Your task to perform on an android device: add a contact in the contacts app Image 0: 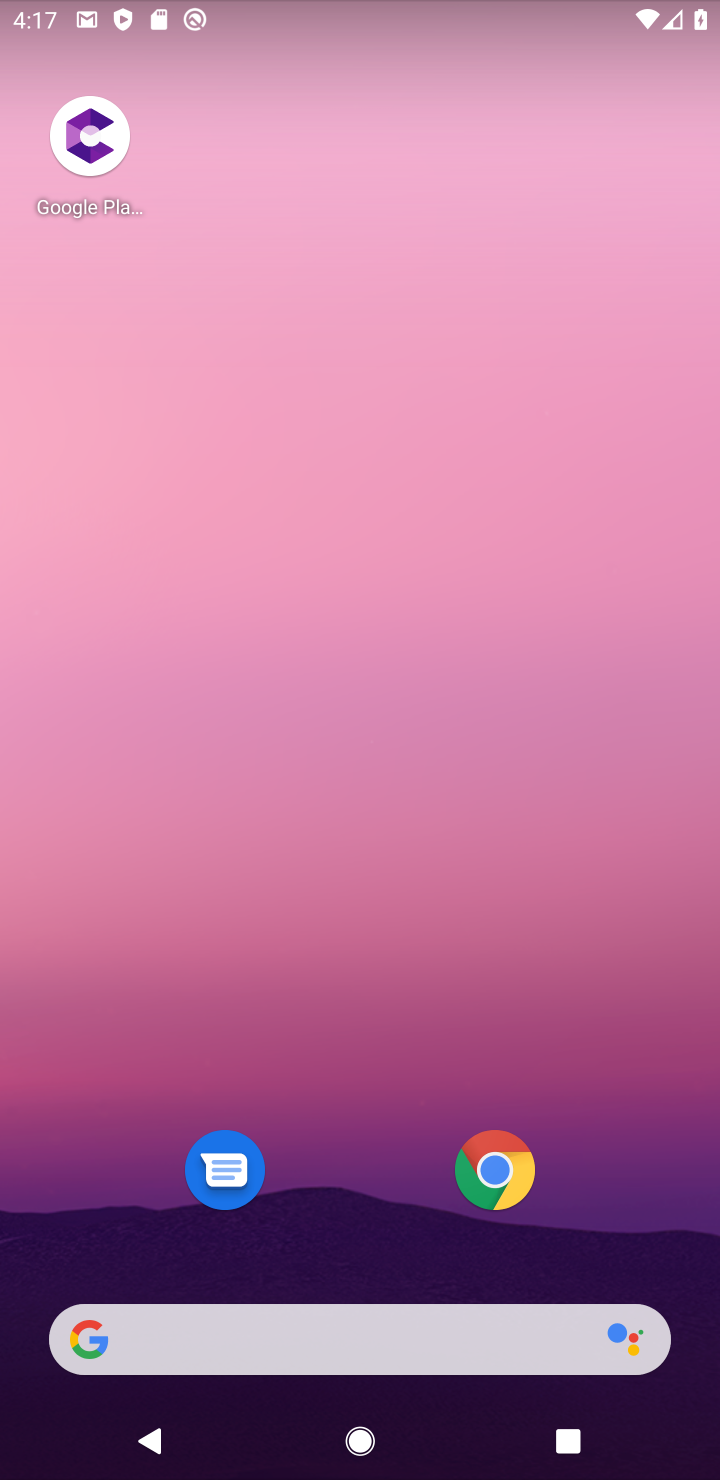
Step 0: drag from (366, 1273) to (695, 712)
Your task to perform on an android device: add a contact in the contacts app Image 1: 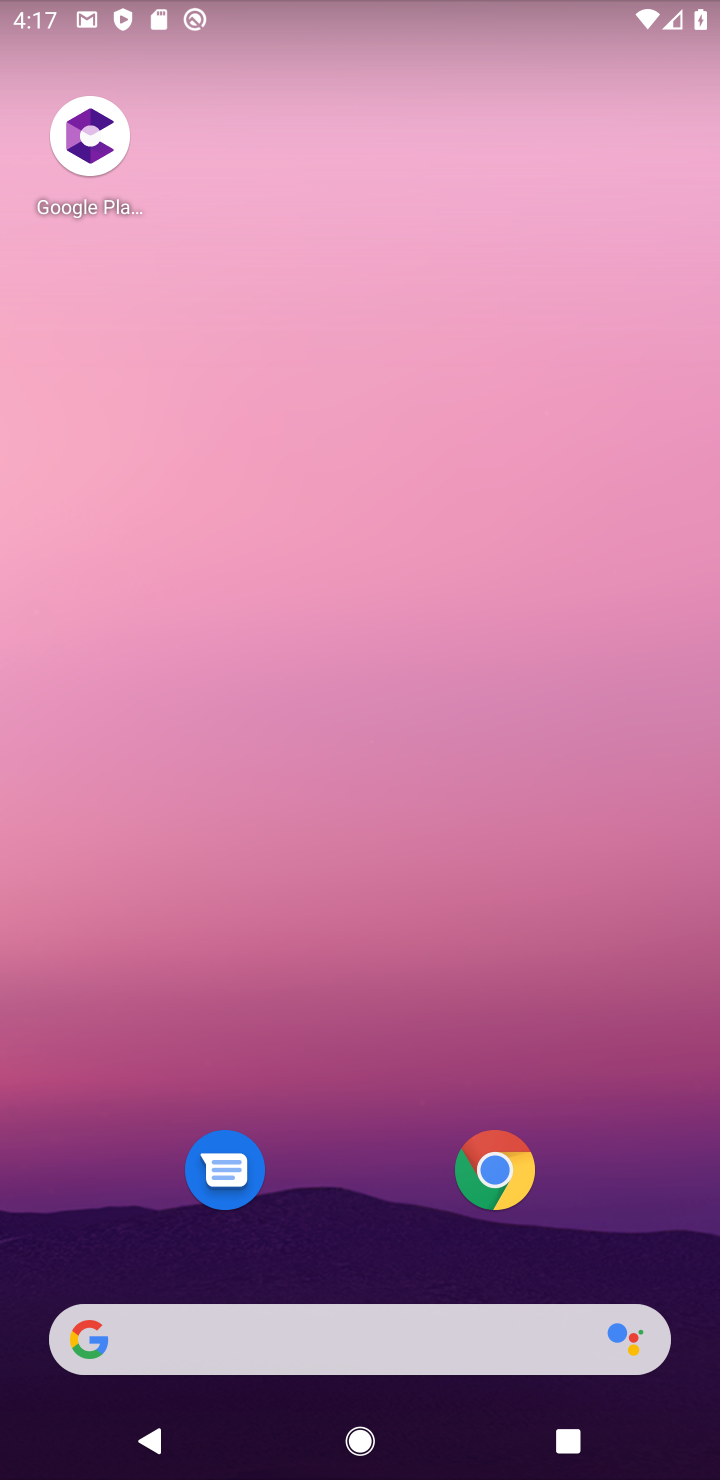
Step 1: drag from (369, 1272) to (324, 192)
Your task to perform on an android device: add a contact in the contacts app Image 2: 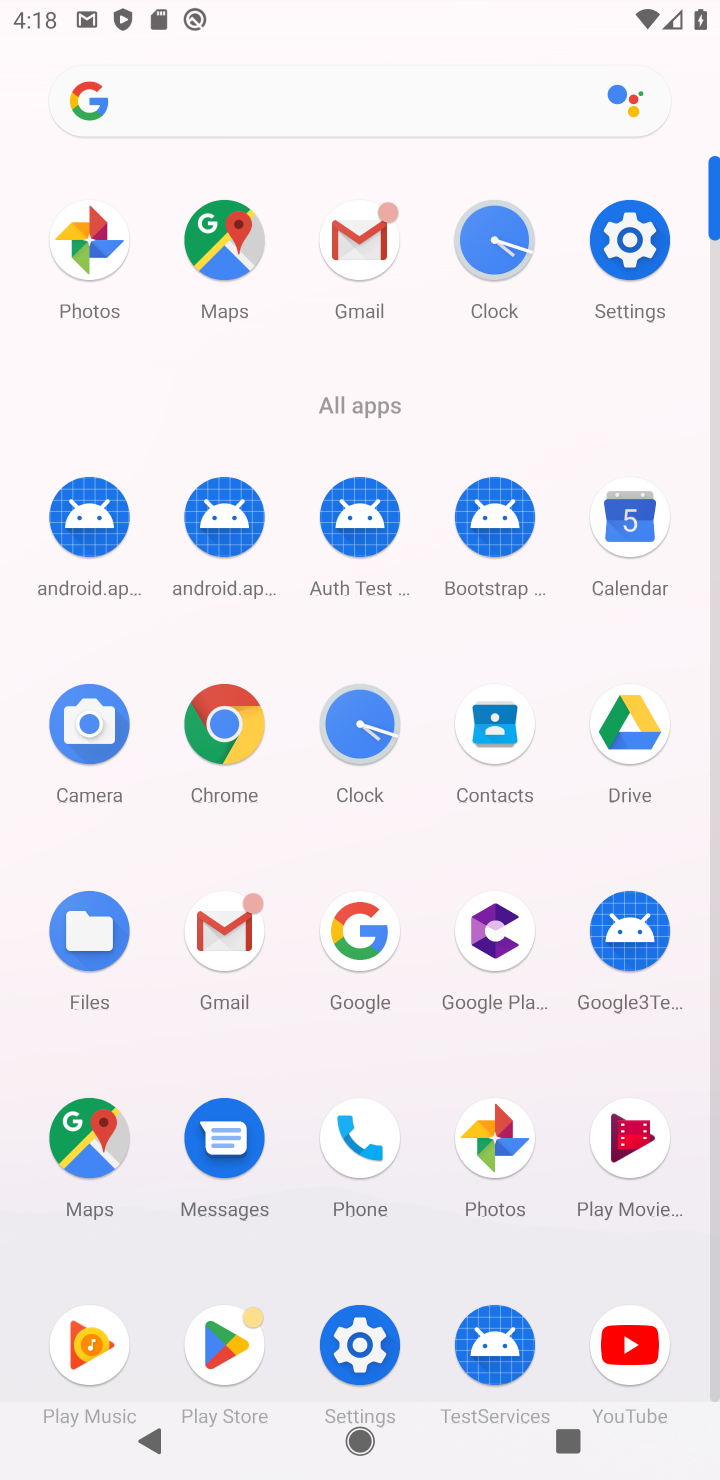
Step 2: click (489, 760)
Your task to perform on an android device: add a contact in the contacts app Image 3: 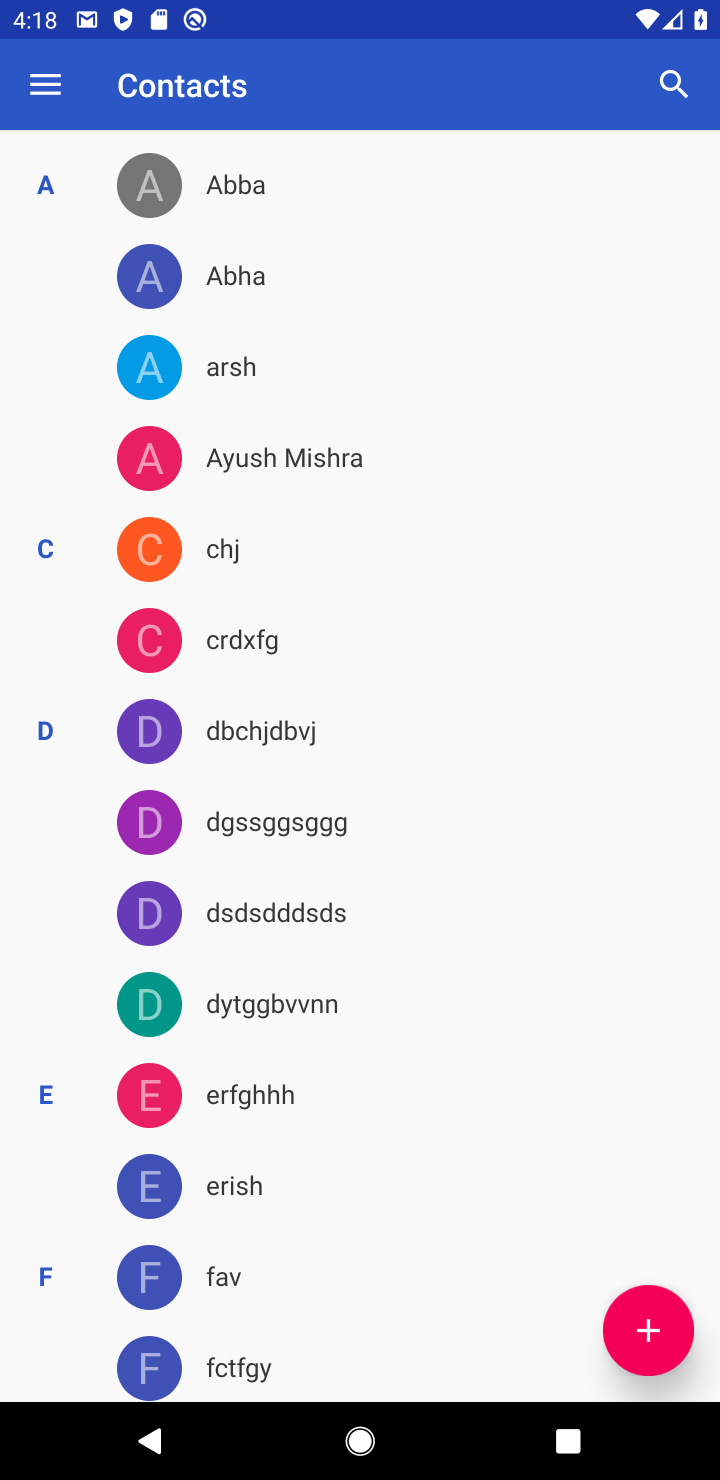
Step 3: click (639, 1304)
Your task to perform on an android device: add a contact in the contacts app Image 4: 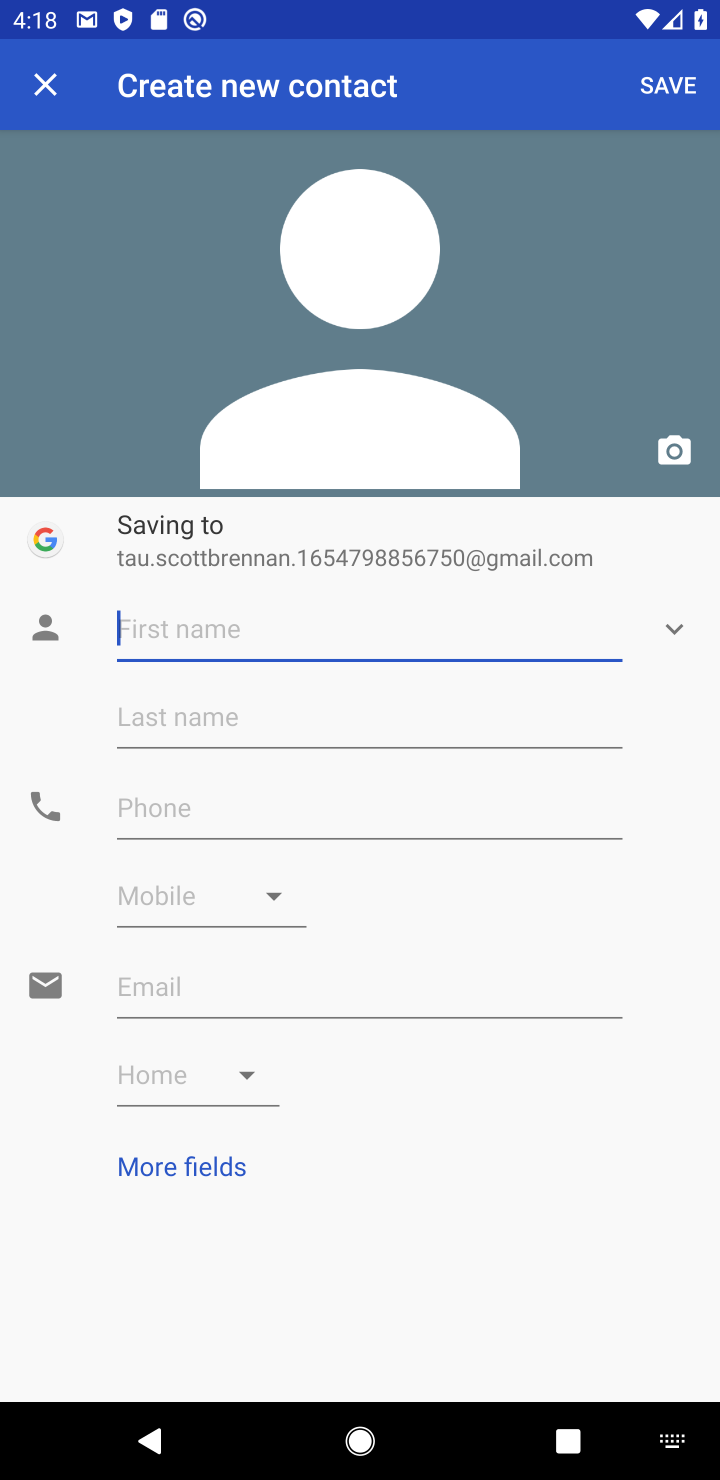
Step 4: type "bvbvbvb"
Your task to perform on an android device: add a contact in the contacts app Image 5: 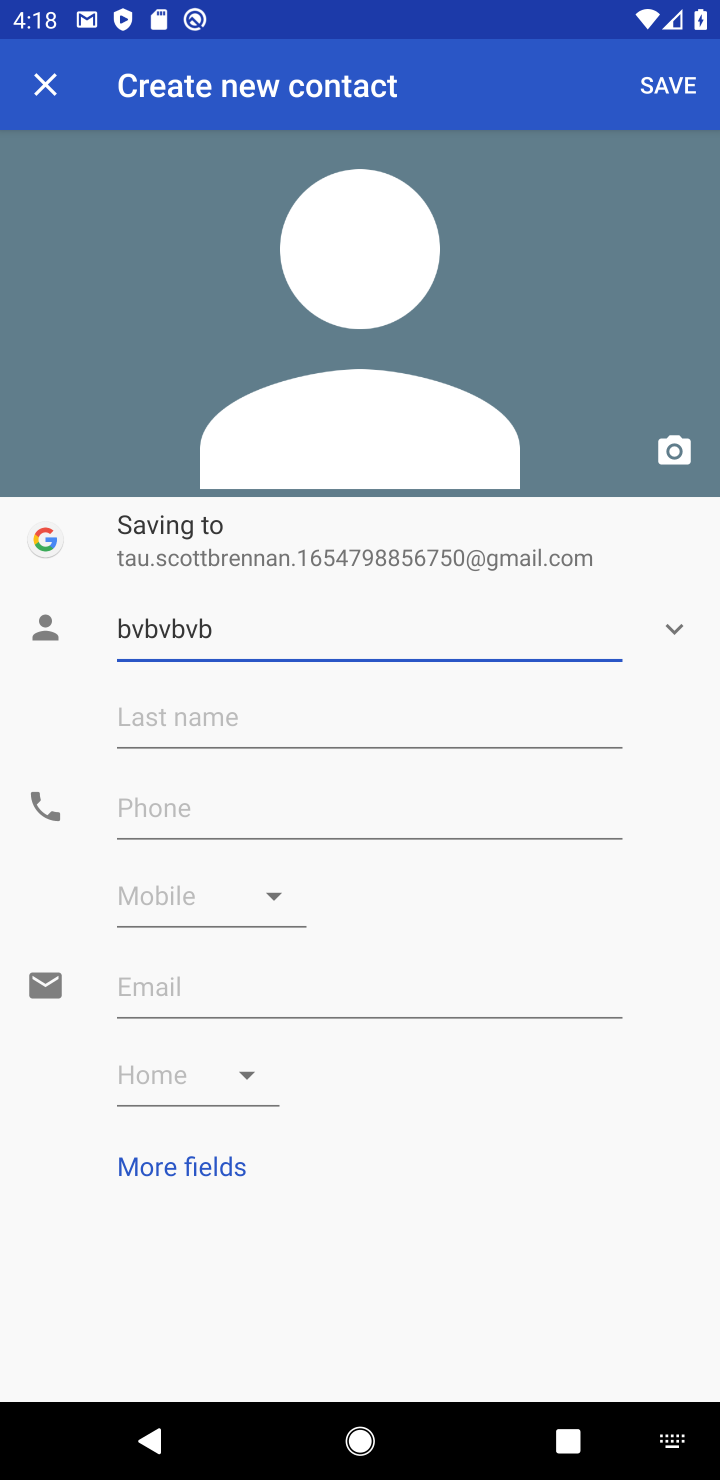
Step 5: click (306, 820)
Your task to perform on an android device: add a contact in the contacts app Image 6: 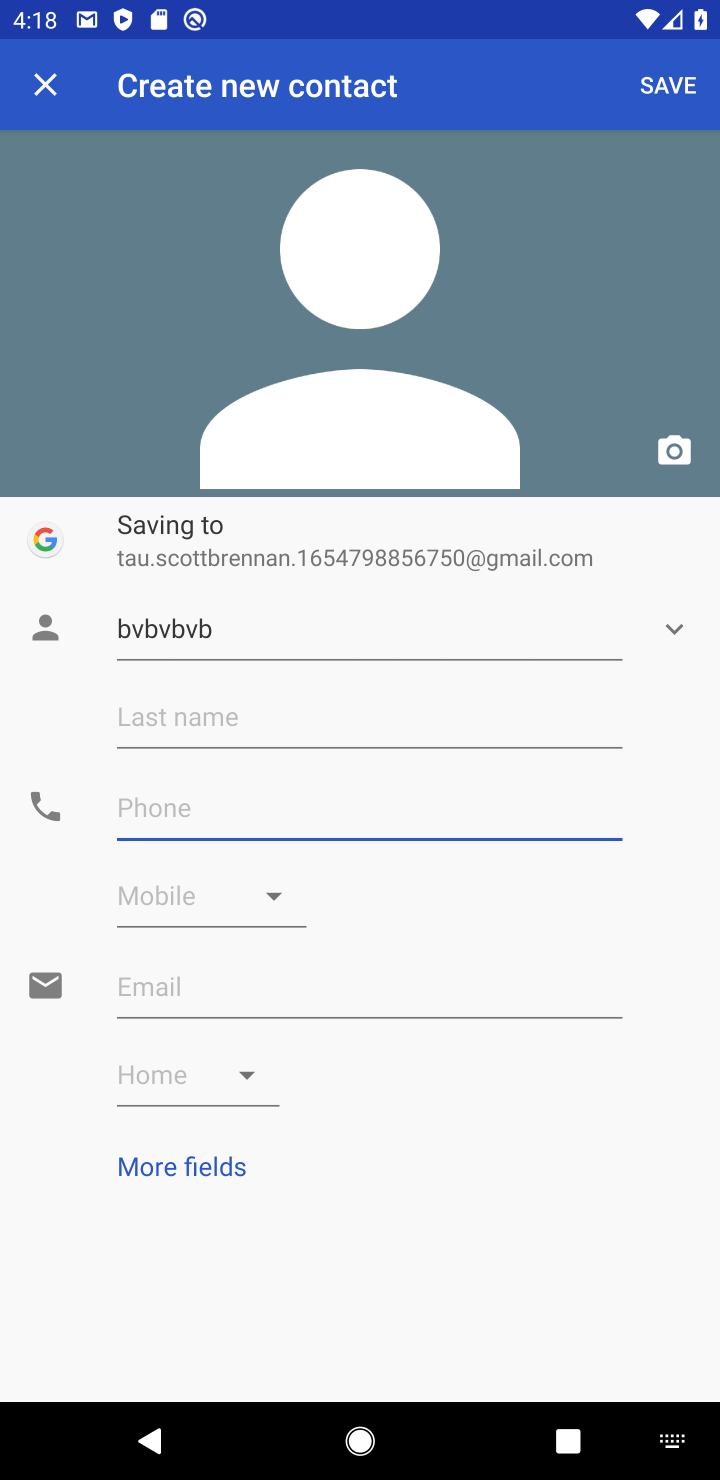
Step 6: type "878778"
Your task to perform on an android device: add a contact in the contacts app Image 7: 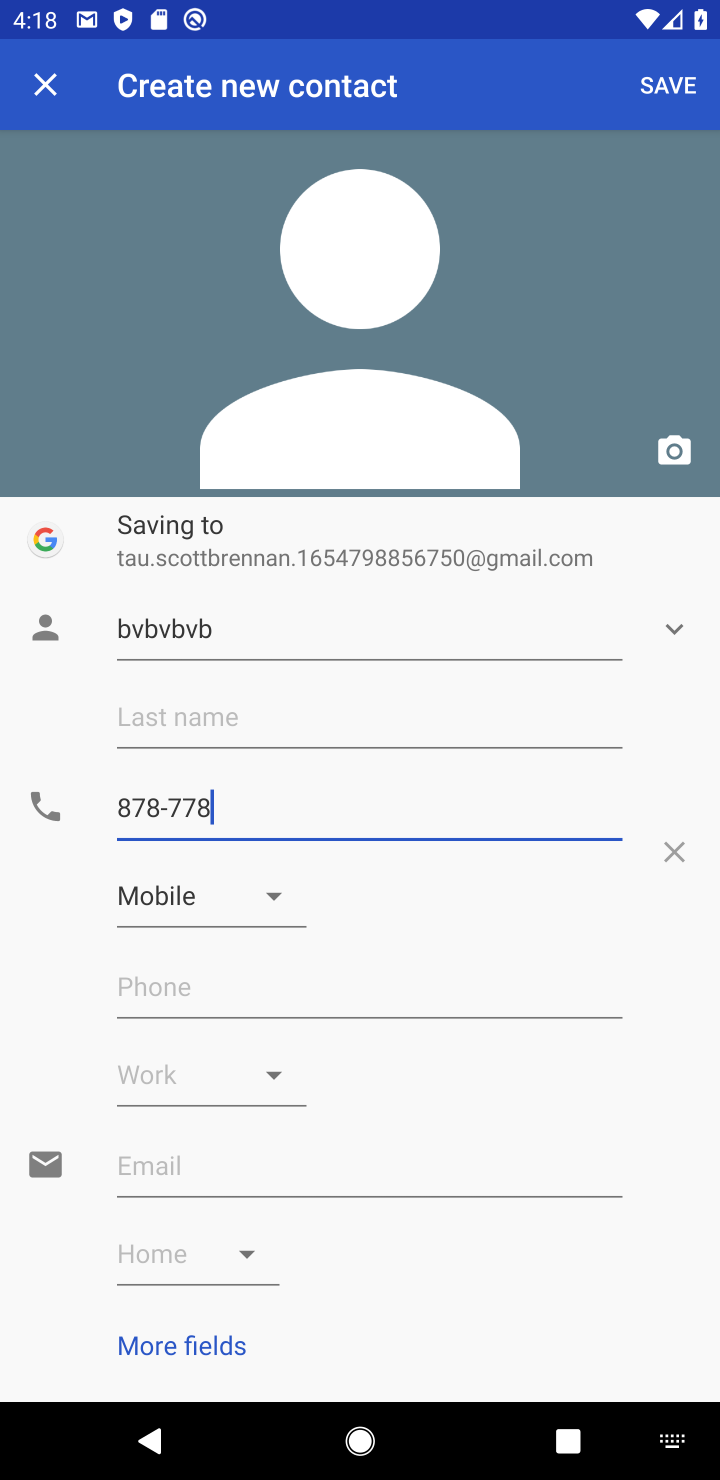
Step 7: click (672, 82)
Your task to perform on an android device: add a contact in the contacts app Image 8: 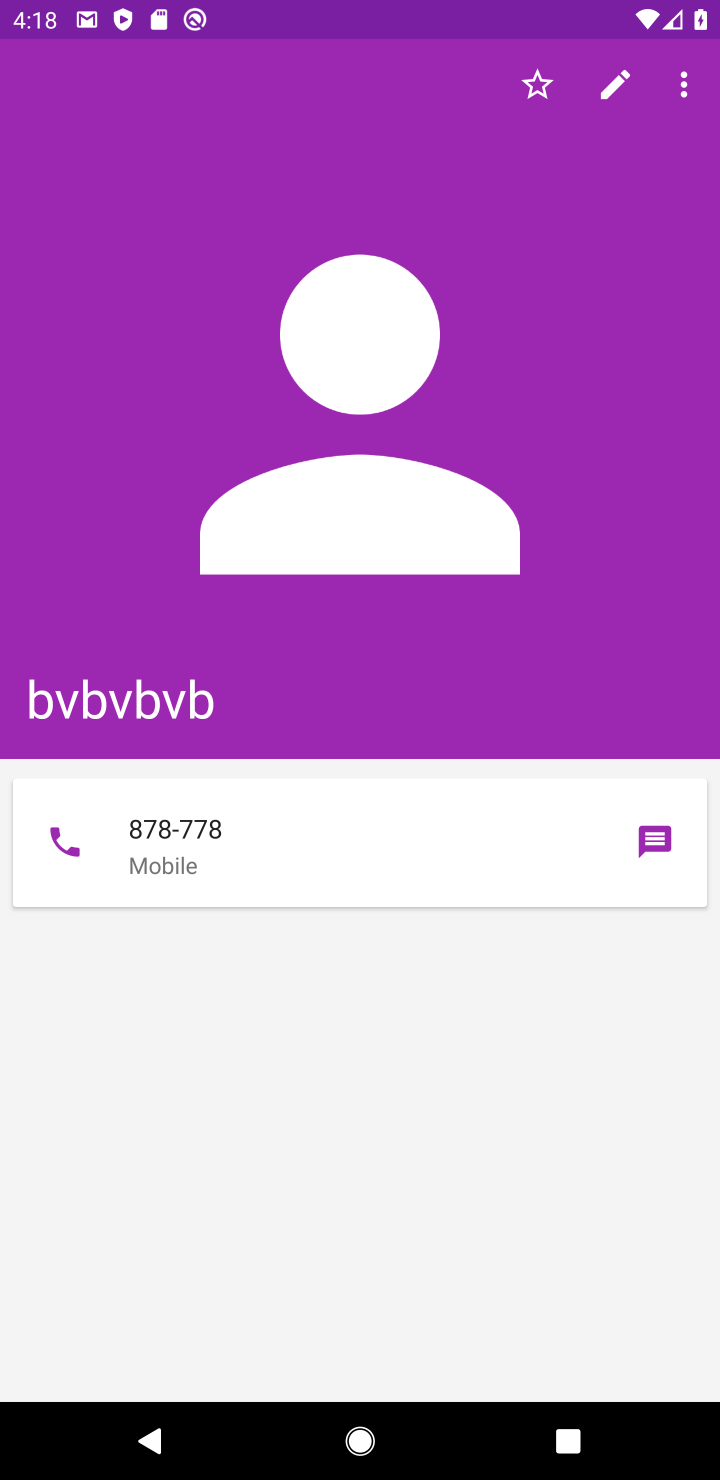
Step 8: task complete